Your task to perform on an android device: Open Android settings Image 0: 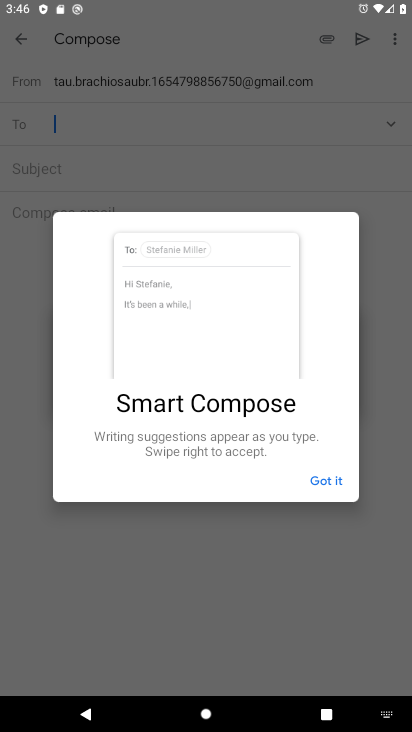
Step 0: press home button
Your task to perform on an android device: Open Android settings Image 1: 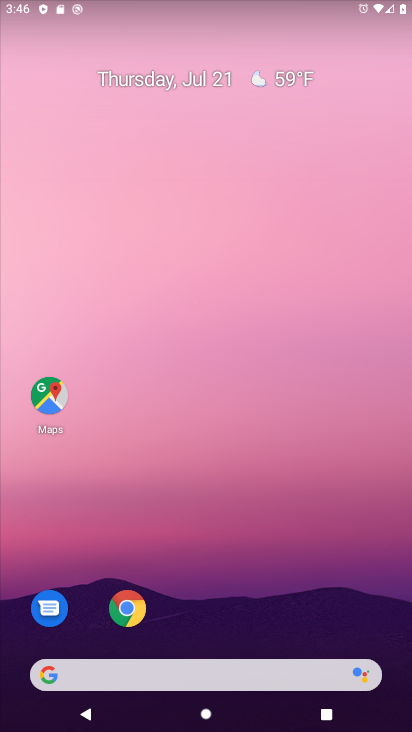
Step 1: drag from (281, 624) to (324, 41)
Your task to perform on an android device: Open Android settings Image 2: 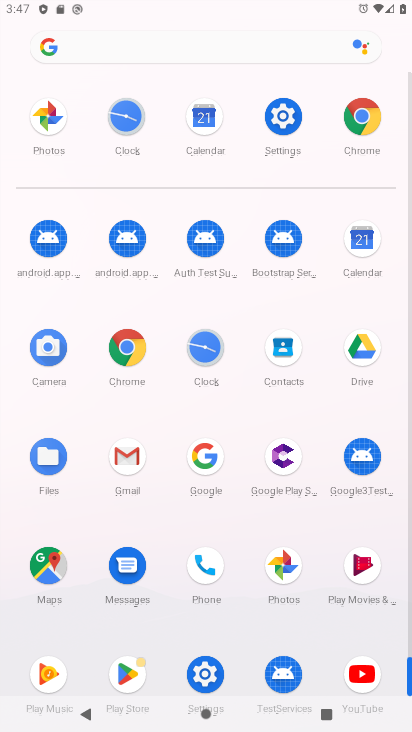
Step 2: click (291, 114)
Your task to perform on an android device: Open Android settings Image 3: 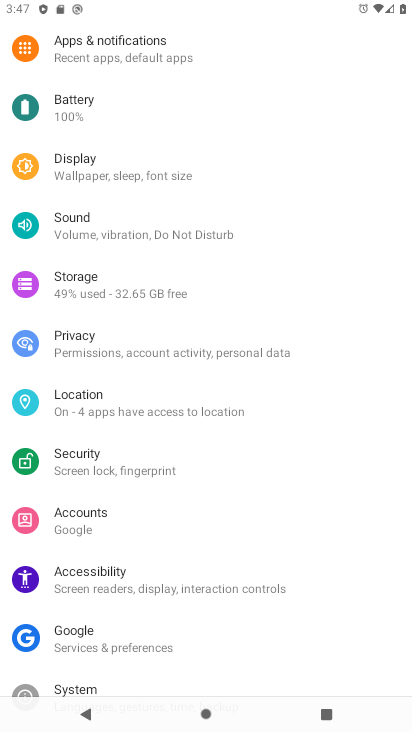
Step 3: drag from (232, 672) to (302, 331)
Your task to perform on an android device: Open Android settings Image 4: 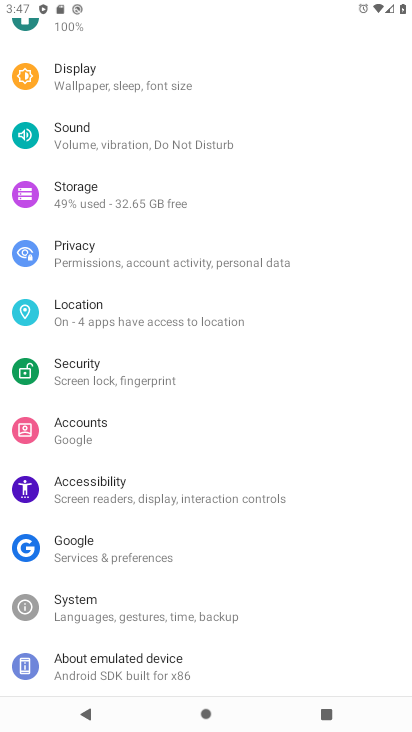
Step 4: click (223, 671)
Your task to perform on an android device: Open Android settings Image 5: 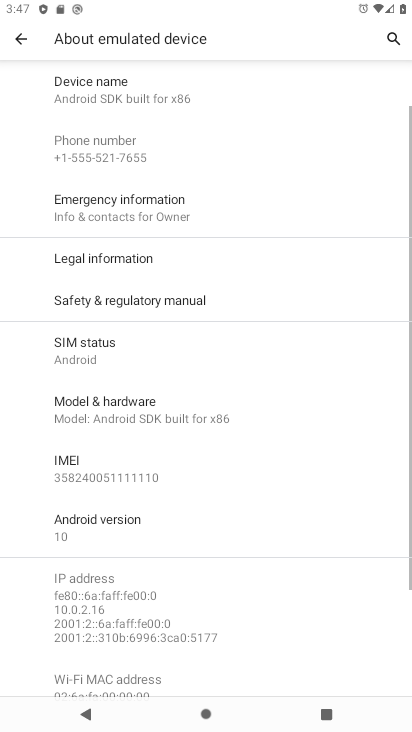
Step 5: click (105, 521)
Your task to perform on an android device: Open Android settings Image 6: 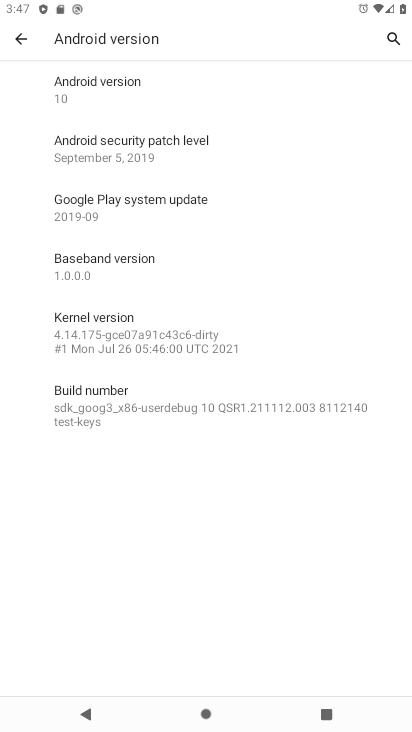
Step 6: task complete